Your task to perform on an android device: change your default location settings in chrome Image 0: 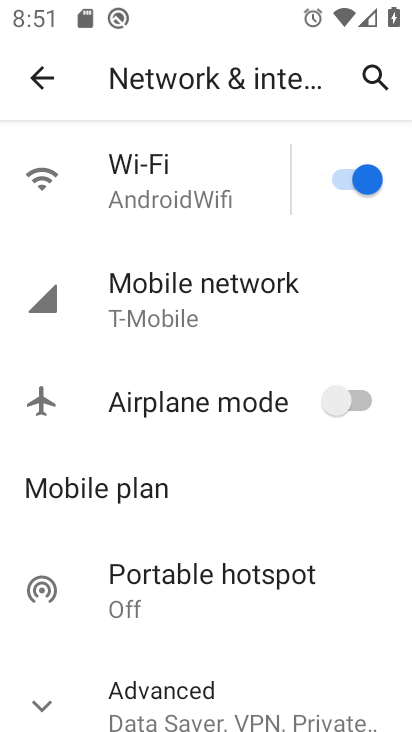
Step 0: press home button
Your task to perform on an android device: change your default location settings in chrome Image 1: 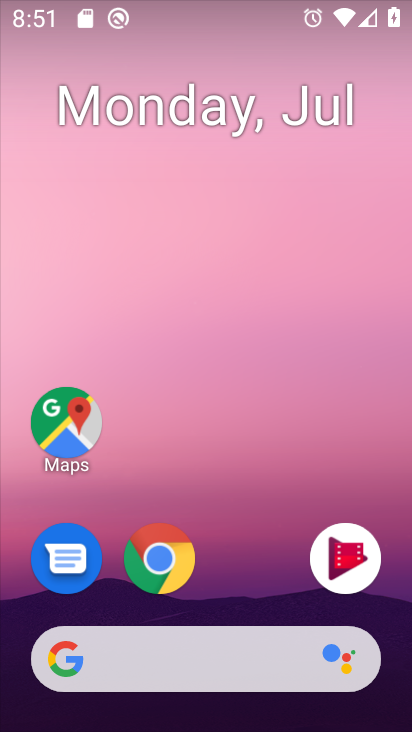
Step 1: drag from (240, 571) to (289, 107)
Your task to perform on an android device: change your default location settings in chrome Image 2: 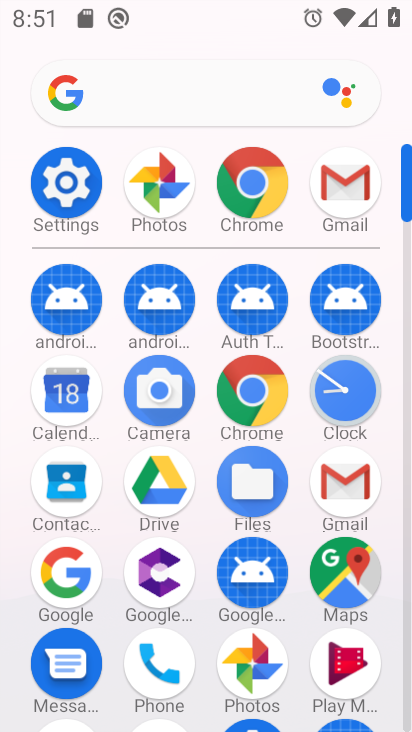
Step 2: click (268, 390)
Your task to perform on an android device: change your default location settings in chrome Image 3: 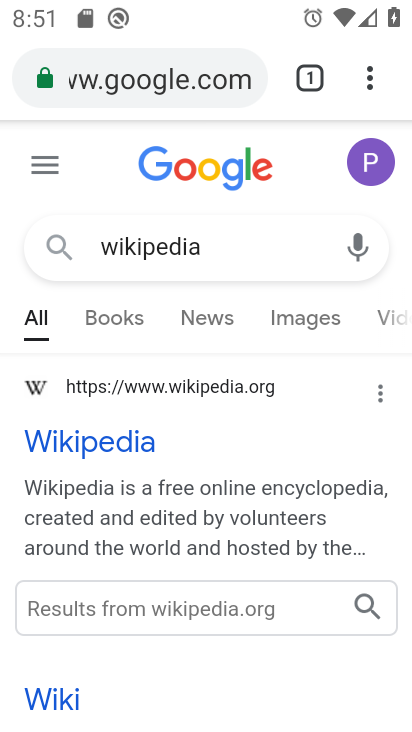
Step 3: click (373, 86)
Your task to perform on an android device: change your default location settings in chrome Image 4: 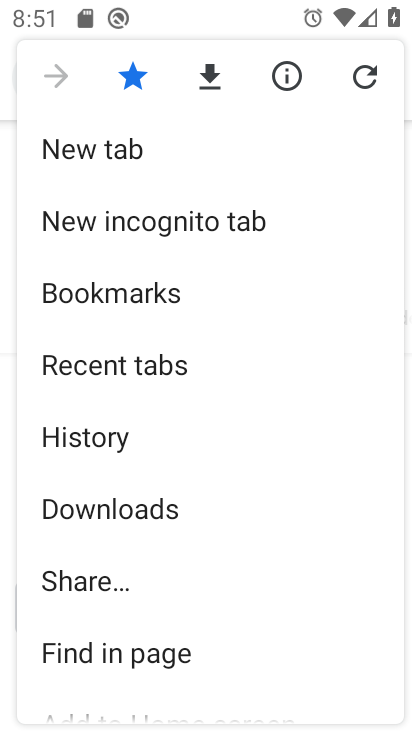
Step 4: drag from (292, 588) to (298, 505)
Your task to perform on an android device: change your default location settings in chrome Image 5: 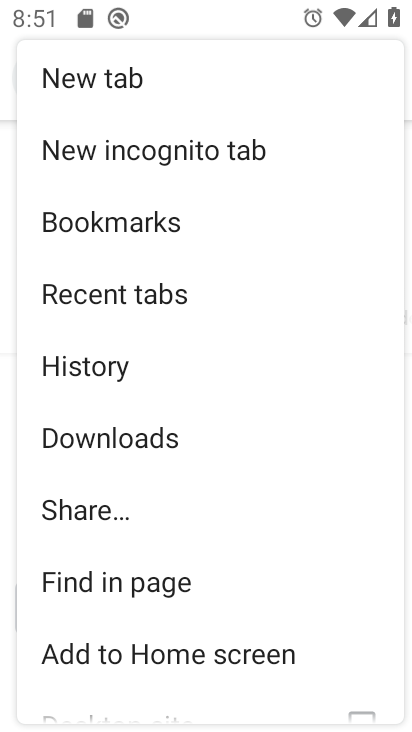
Step 5: drag from (298, 568) to (297, 500)
Your task to perform on an android device: change your default location settings in chrome Image 6: 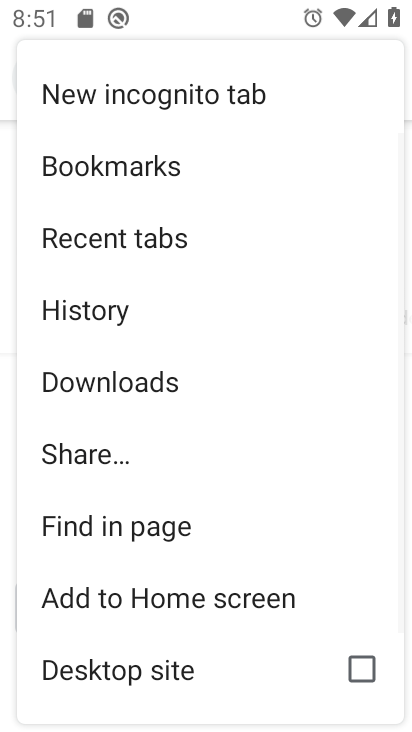
Step 6: drag from (294, 632) to (299, 493)
Your task to perform on an android device: change your default location settings in chrome Image 7: 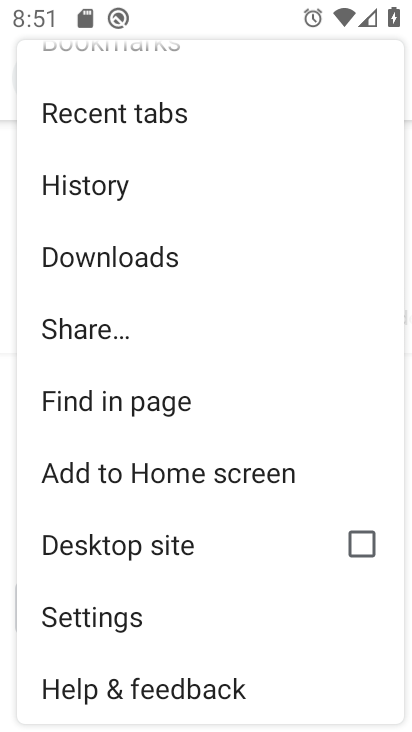
Step 7: click (227, 614)
Your task to perform on an android device: change your default location settings in chrome Image 8: 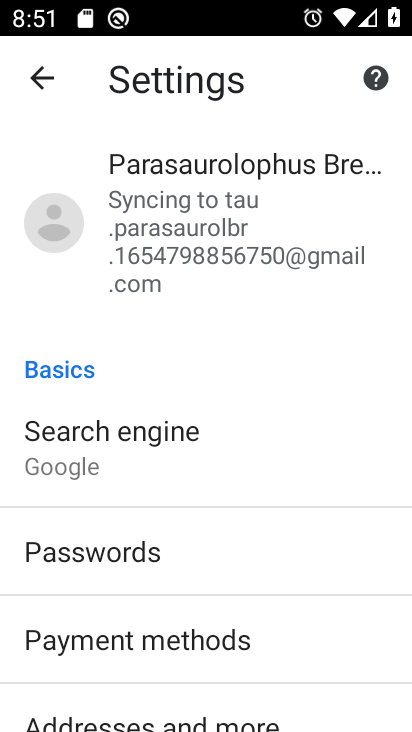
Step 8: drag from (283, 622) to (305, 546)
Your task to perform on an android device: change your default location settings in chrome Image 9: 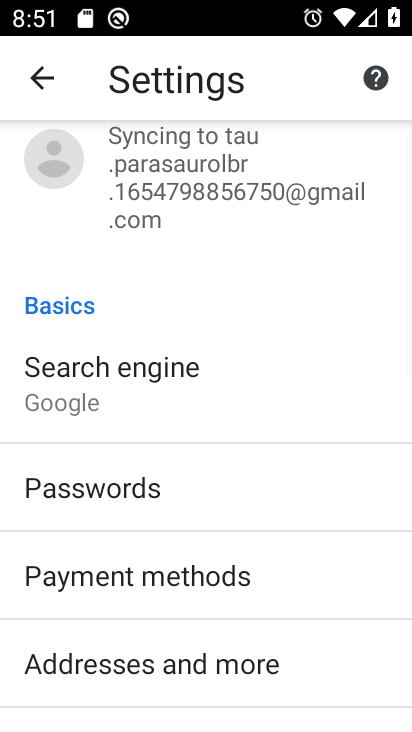
Step 9: drag from (315, 594) to (320, 489)
Your task to perform on an android device: change your default location settings in chrome Image 10: 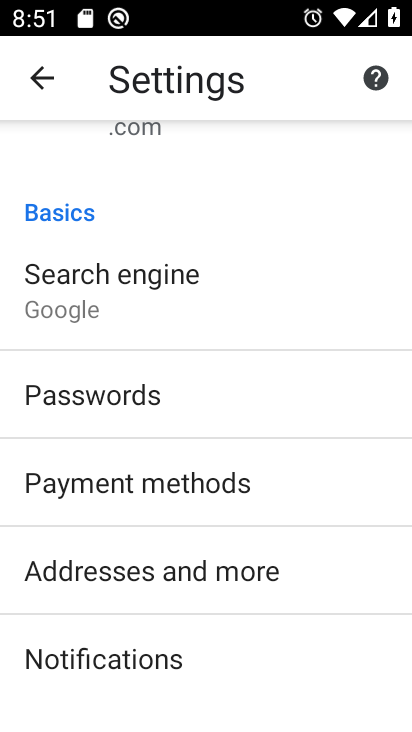
Step 10: drag from (325, 597) to (335, 450)
Your task to perform on an android device: change your default location settings in chrome Image 11: 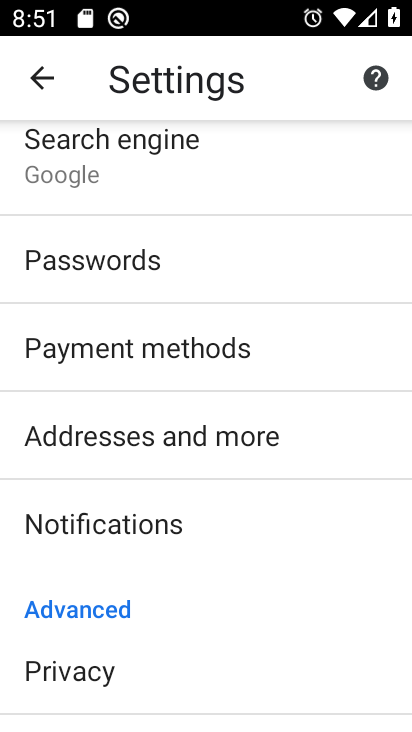
Step 11: drag from (304, 557) to (308, 483)
Your task to perform on an android device: change your default location settings in chrome Image 12: 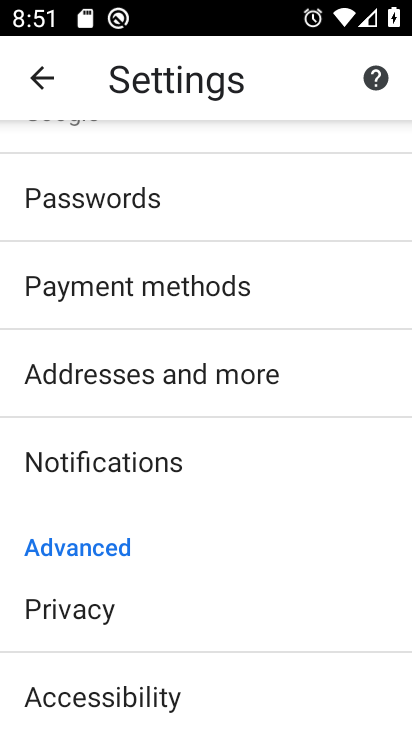
Step 12: drag from (295, 578) to (323, 407)
Your task to perform on an android device: change your default location settings in chrome Image 13: 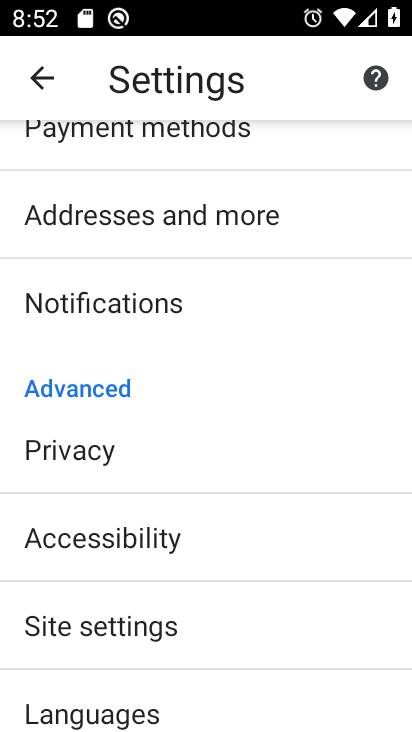
Step 13: drag from (331, 534) to (354, 437)
Your task to perform on an android device: change your default location settings in chrome Image 14: 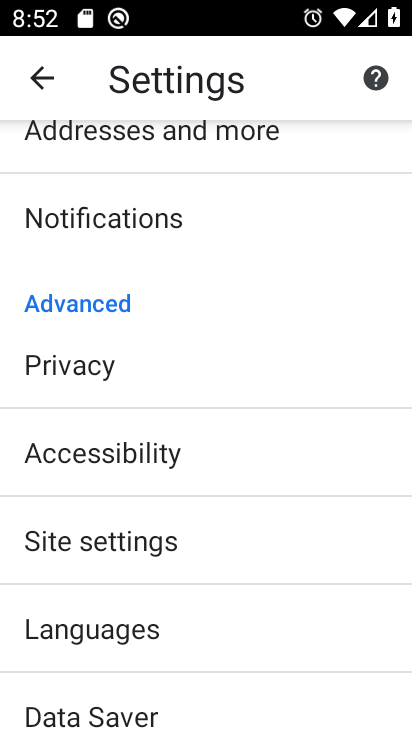
Step 14: drag from (293, 474) to (288, 386)
Your task to perform on an android device: change your default location settings in chrome Image 15: 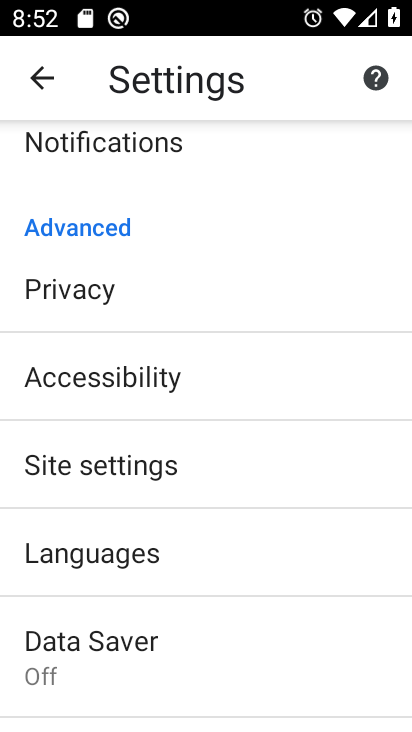
Step 15: click (286, 457)
Your task to perform on an android device: change your default location settings in chrome Image 16: 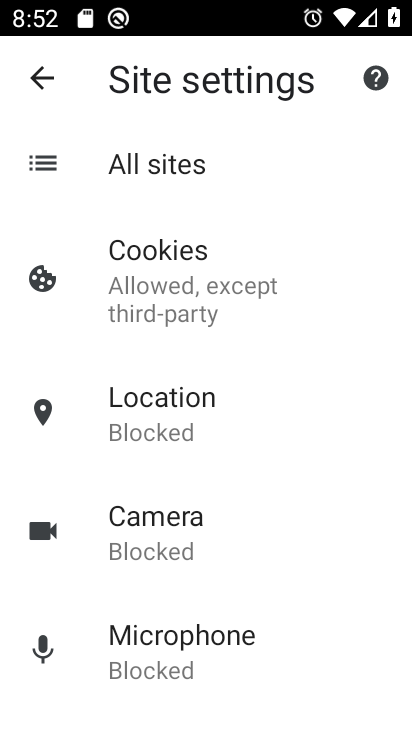
Step 16: click (220, 413)
Your task to perform on an android device: change your default location settings in chrome Image 17: 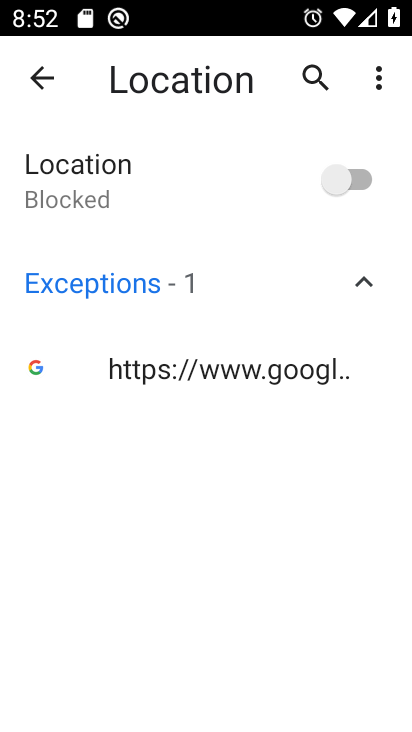
Step 17: click (342, 189)
Your task to perform on an android device: change your default location settings in chrome Image 18: 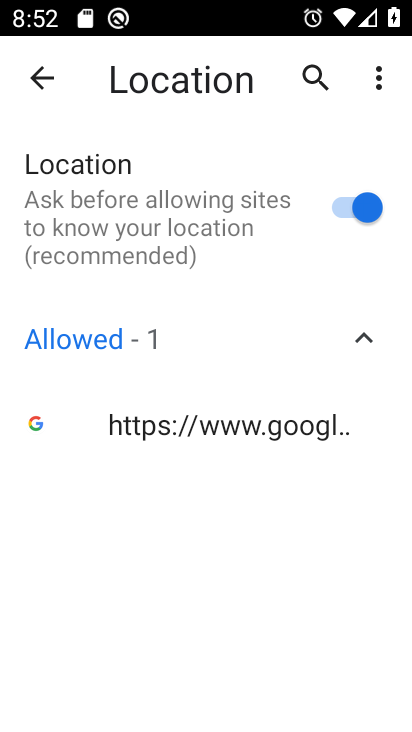
Step 18: task complete